Your task to perform on an android device: Go to Google maps Image 0: 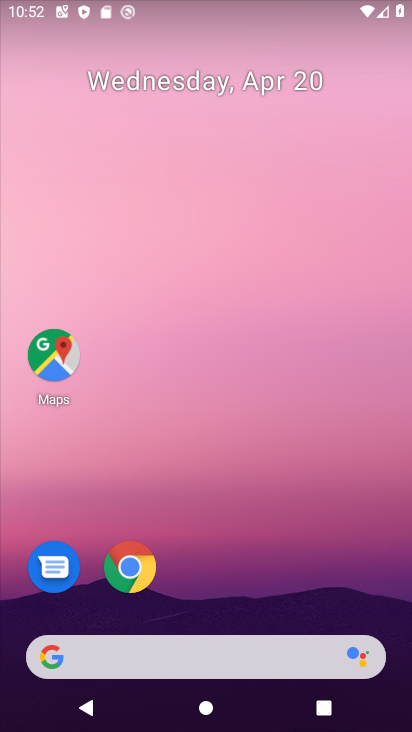
Step 0: drag from (267, 563) to (283, 56)
Your task to perform on an android device: Go to Google maps Image 1: 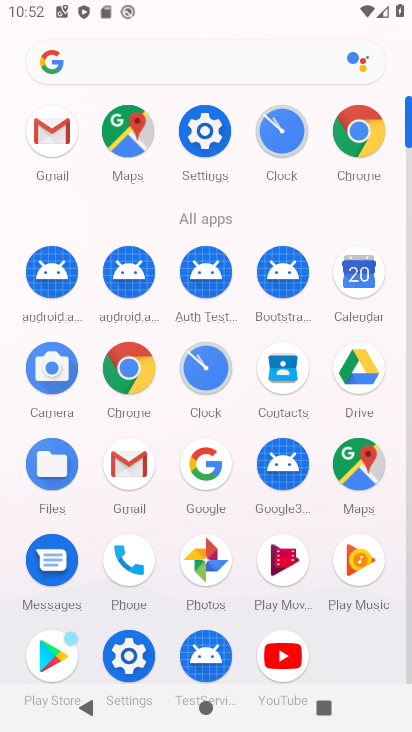
Step 1: click (358, 460)
Your task to perform on an android device: Go to Google maps Image 2: 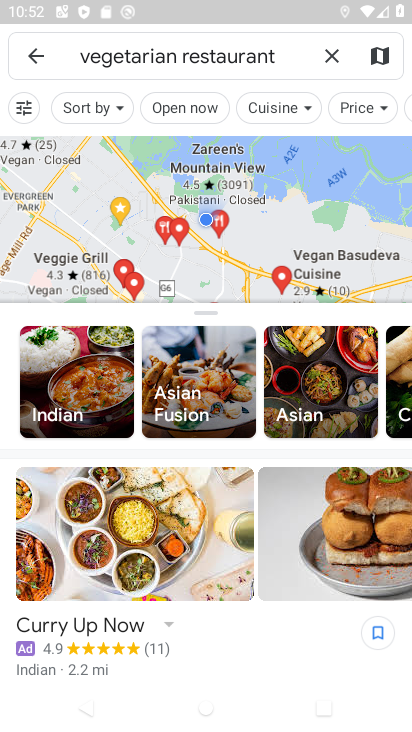
Step 2: click (34, 61)
Your task to perform on an android device: Go to Google maps Image 3: 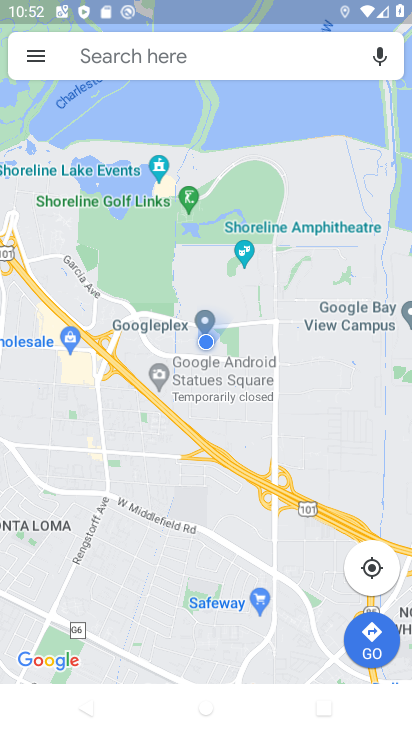
Step 3: task complete